Your task to perform on an android device: Open settings on Google Maps Image 0: 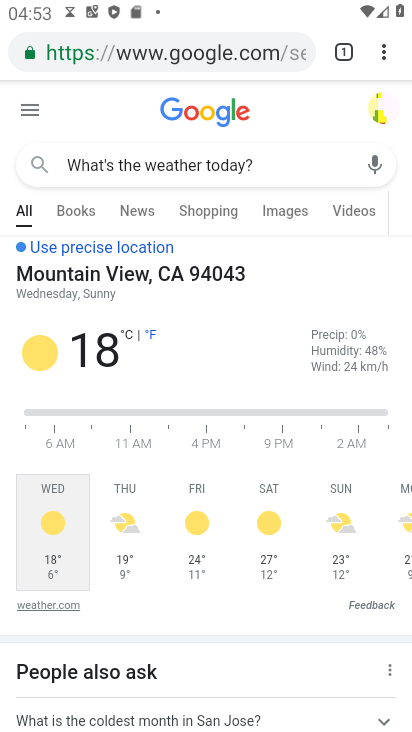
Step 0: press back button
Your task to perform on an android device: Open settings on Google Maps Image 1: 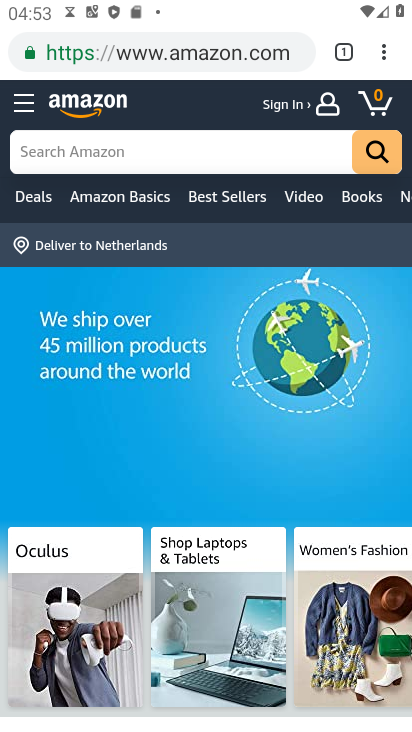
Step 1: press home button
Your task to perform on an android device: Open settings on Google Maps Image 2: 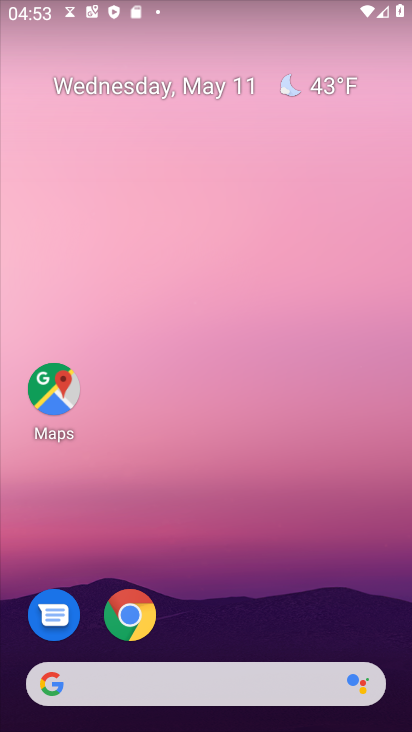
Step 2: drag from (216, 618) to (232, 32)
Your task to perform on an android device: Open settings on Google Maps Image 3: 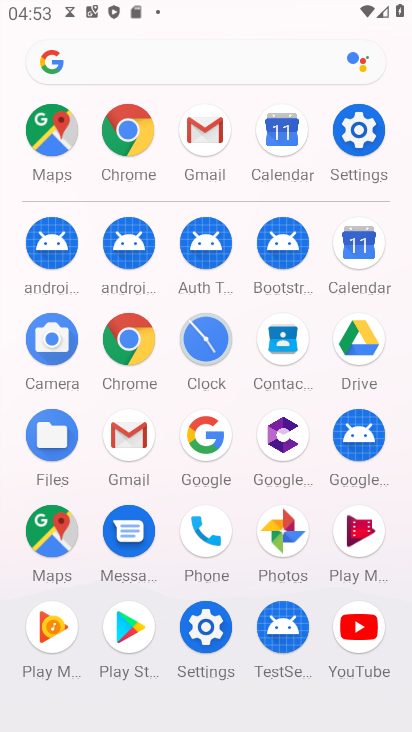
Step 3: click (54, 125)
Your task to perform on an android device: Open settings on Google Maps Image 4: 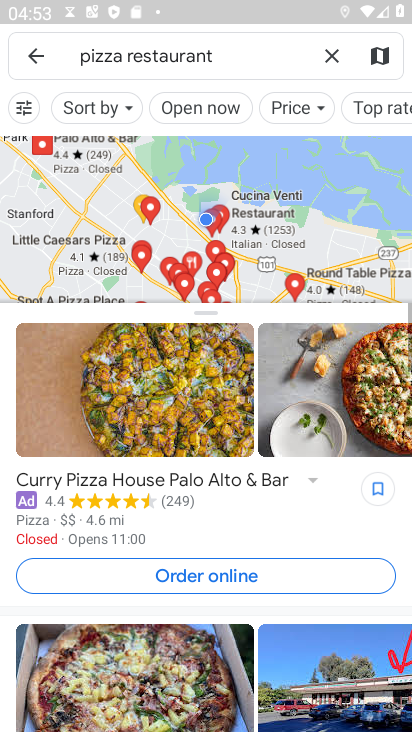
Step 4: click (36, 46)
Your task to perform on an android device: Open settings on Google Maps Image 5: 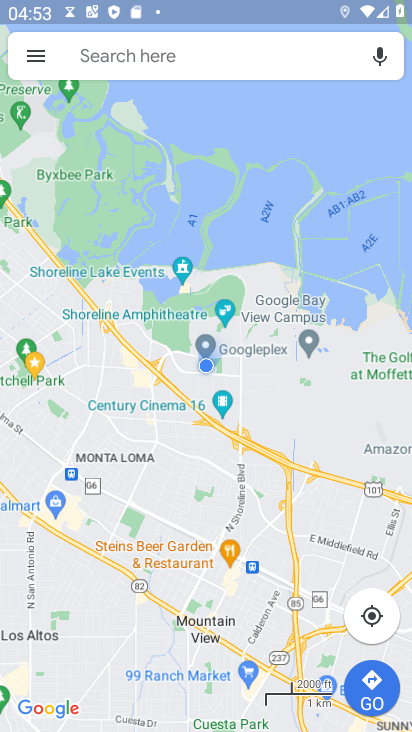
Step 5: click (36, 46)
Your task to perform on an android device: Open settings on Google Maps Image 6: 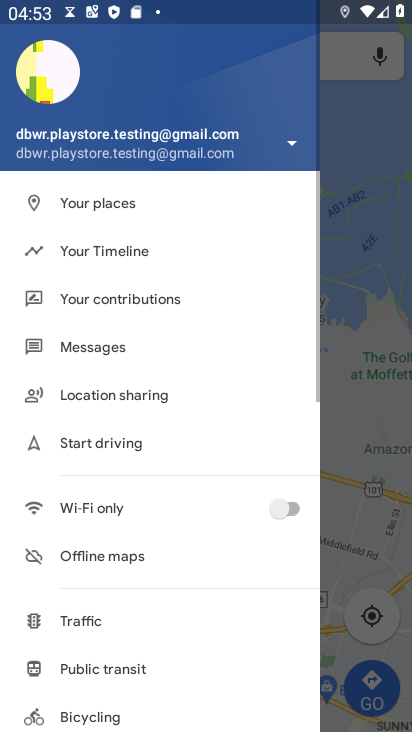
Step 6: drag from (120, 662) to (152, 278)
Your task to perform on an android device: Open settings on Google Maps Image 7: 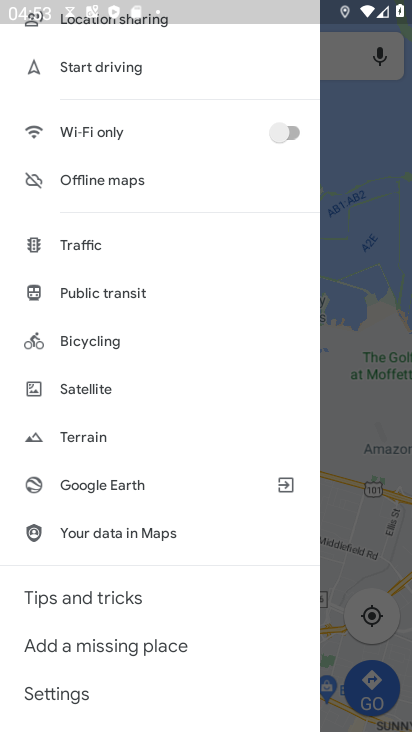
Step 7: drag from (189, 660) to (194, 451)
Your task to perform on an android device: Open settings on Google Maps Image 8: 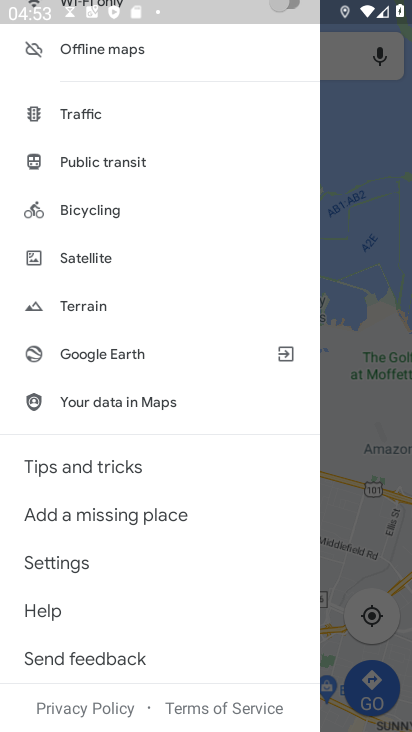
Step 8: click (72, 562)
Your task to perform on an android device: Open settings on Google Maps Image 9: 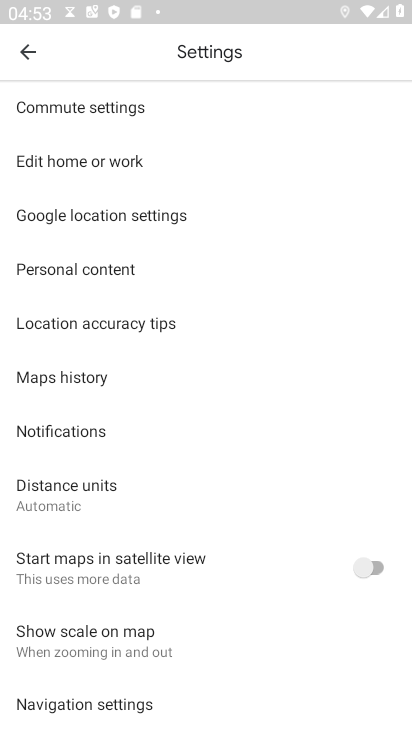
Step 9: task complete